Your task to perform on an android device: clear history in the chrome app Image 0: 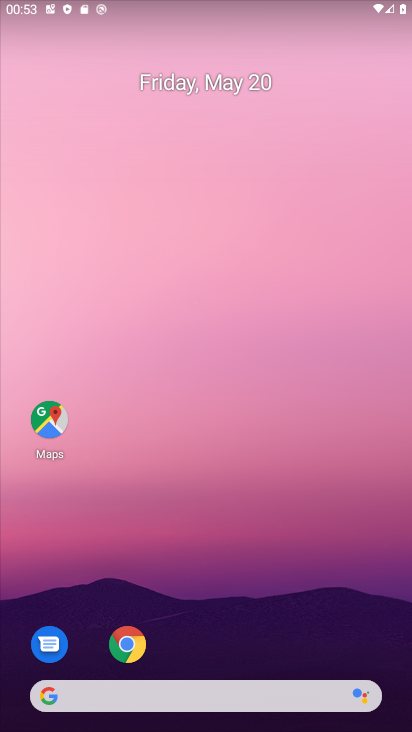
Step 0: click (124, 649)
Your task to perform on an android device: clear history in the chrome app Image 1: 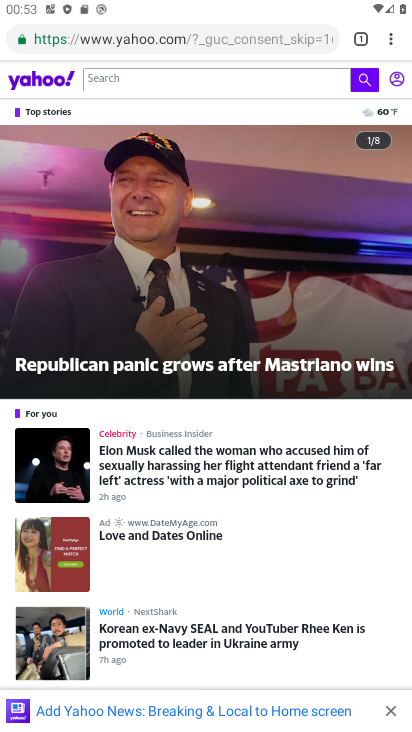
Step 1: click (391, 43)
Your task to perform on an android device: clear history in the chrome app Image 2: 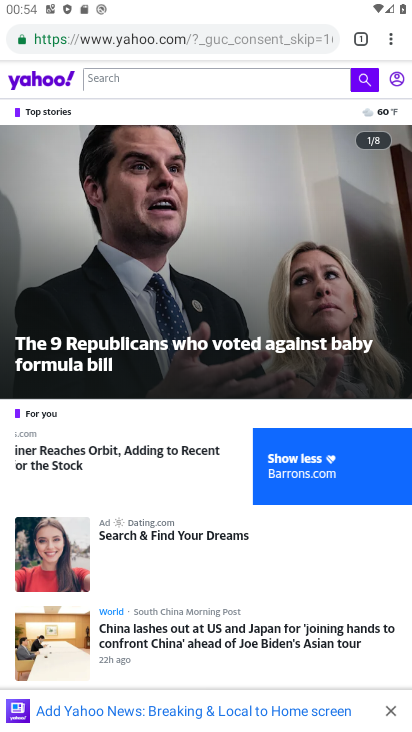
Step 2: click (390, 41)
Your task to perform on an android device: clear history in the chrome app Image 3: 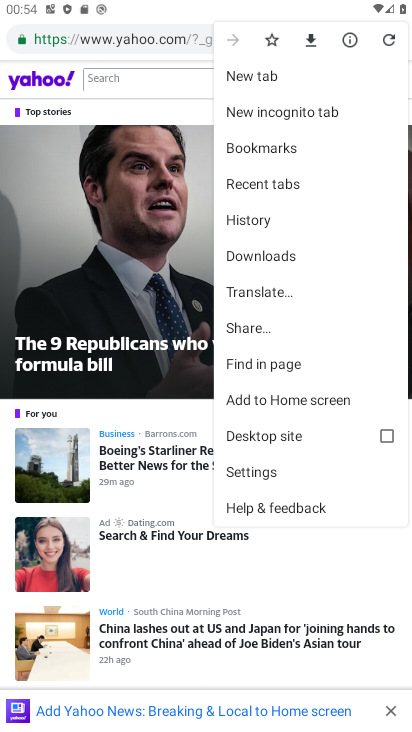
Step 3: click (253, 471)
Your task to perform on an android device: clear history in the chrome app Image 4: 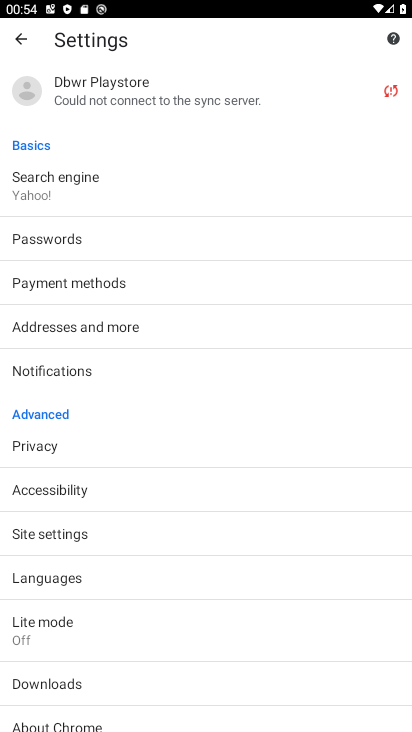
Step 4: click (43, 450)
Your task to perform on an android device: clear history in the chrome app Image 5: 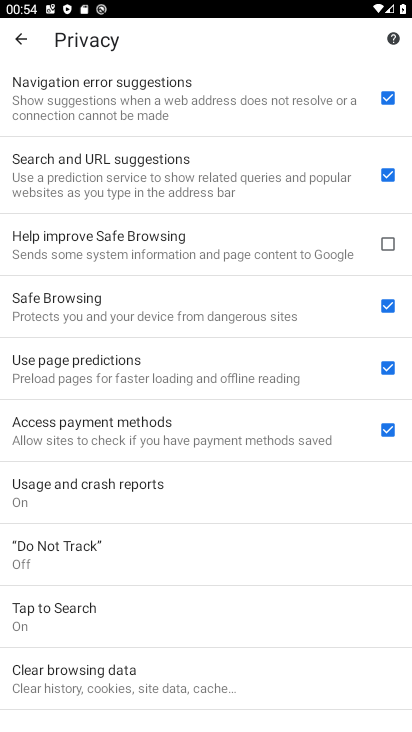
Step 5: drag from (108, 594) to (117, 314)
Your task to perform on an android device: clear history in the chrome app Image 6: 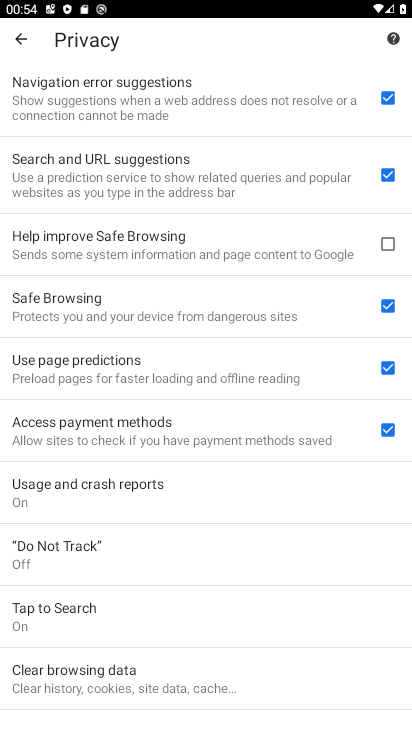
Step 6: click (49, 679)
Your task to perform on an android device: clear history in the chrome app Image 7: 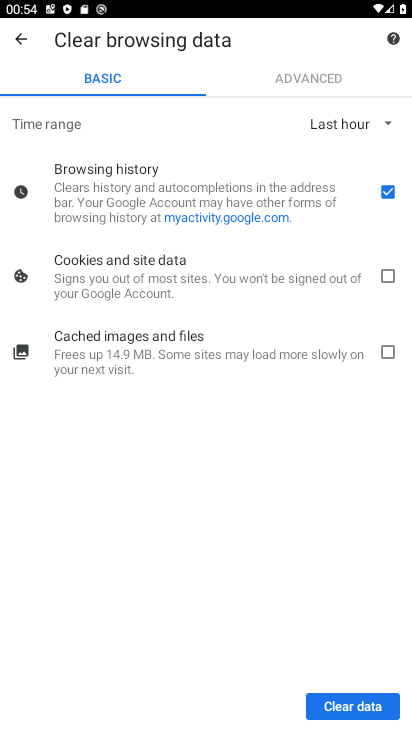
Step 7: click (359, 700)
Your task to perform on an android device: clear history in the chrome app Image 8: 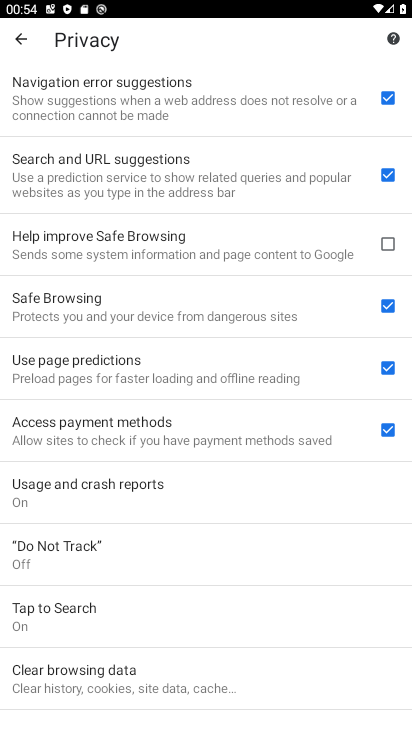
Step 8: task complete